Your task to perform on an android device: open a bookmark in the chrome app Image 0: 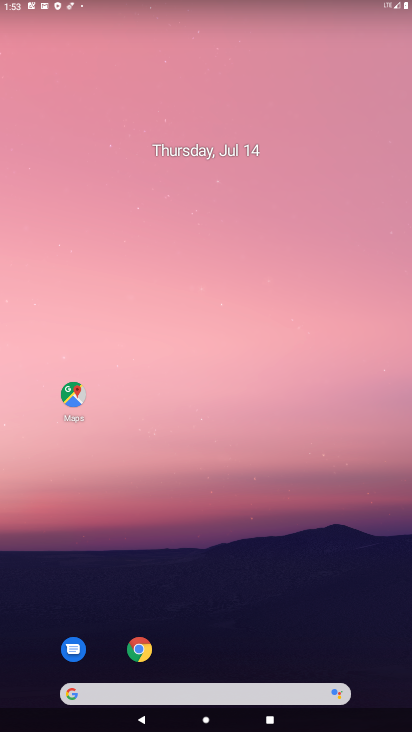
Step 0: drag from (376, 666) to (240, 21)
Your task to perform on an android device: open a bookmark in the chrome app Image 1: 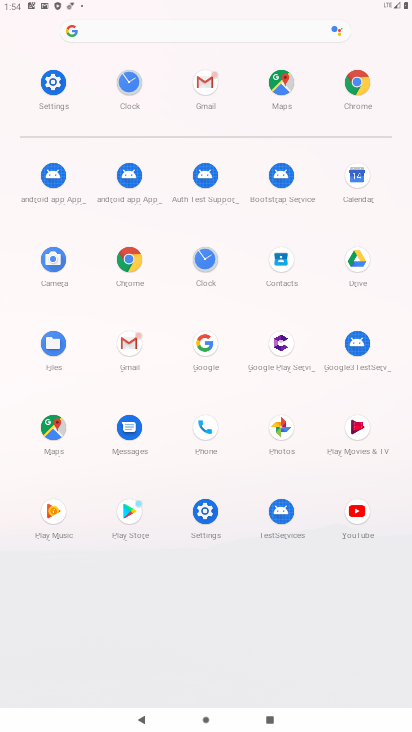
Step 1: click (131, 258)
Your task to perform on an android device: open a bookmark in the chrome app Image 2: 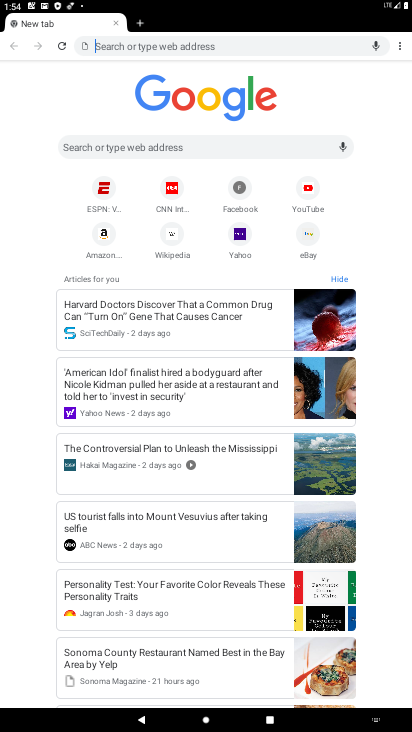
Step 2: click (402, 40)
Your task to perform on an android device: open a bookmark in the chrome app Image 3: 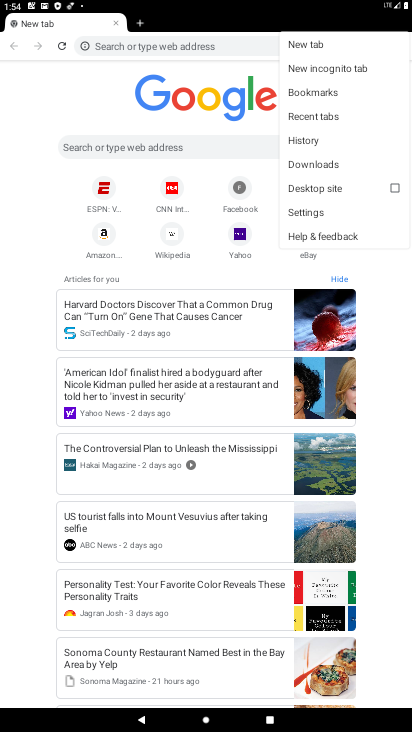
Step 3: click (328, 95)
Your task to perform on an android device: open a bookmark in the chrome app Image 4: 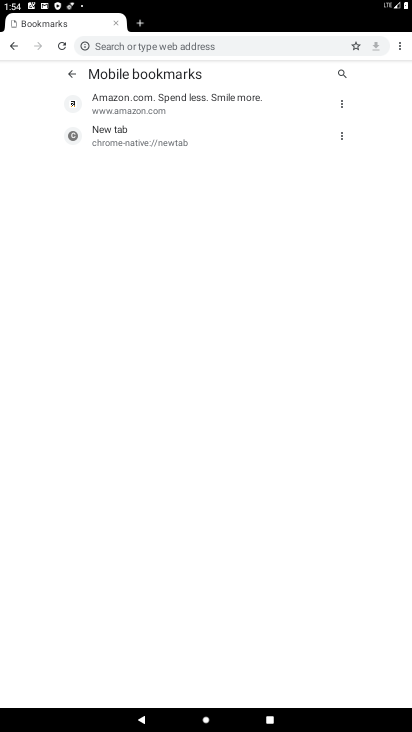
Step 4: task complete